Your task to perform on an android device: What's on my calendar today? Image 0: 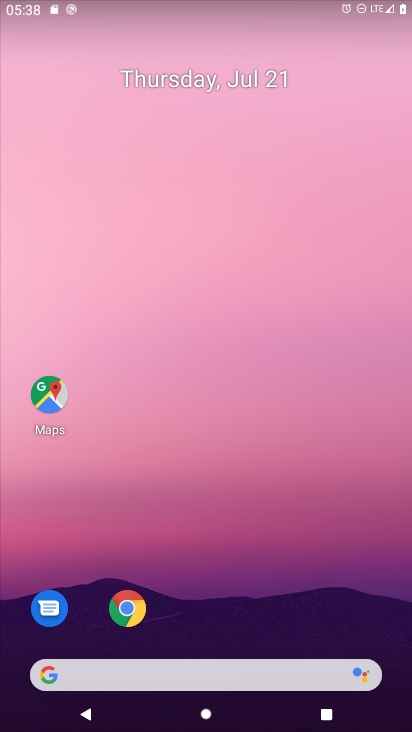
Step 0: drag from (228, 633) to (332, 3)
Your task to perform on an android device: What's on my calendar today? Image 1: 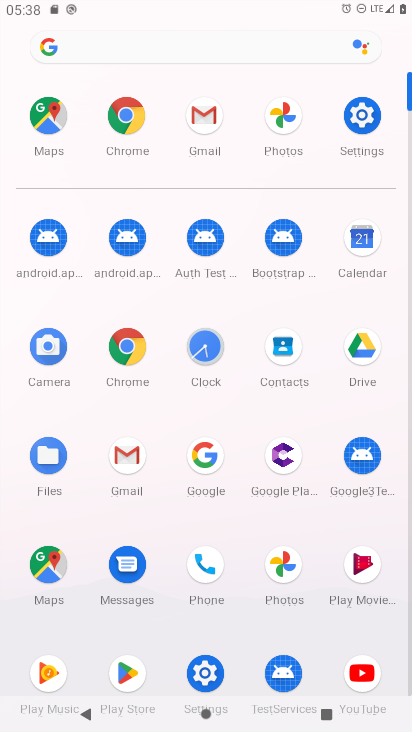
Step 1: click (359, 244)
Your task to perform on an android device: What's on my calendar today? Image 2: 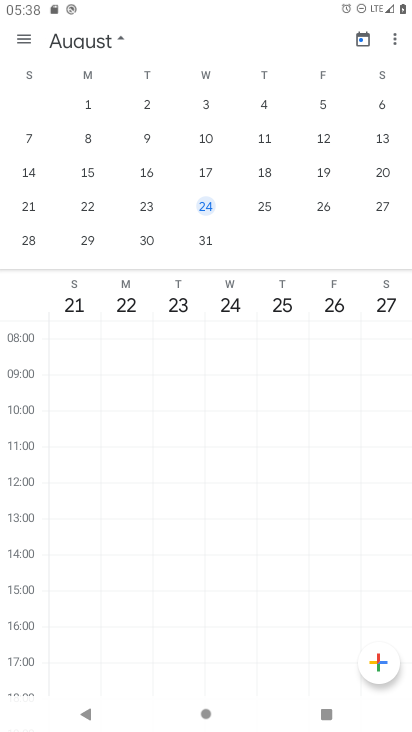
Step 2: drag from (44, 156) to (390, 188)
Your task to perform on an android device: What's on my calendar today? Image 3: 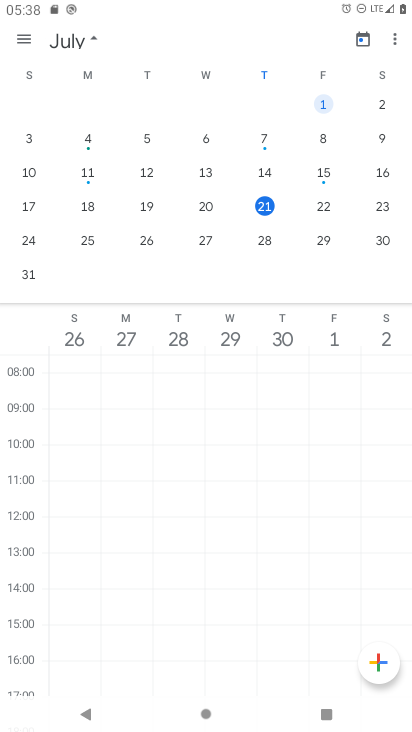
Step 3: click (264, 207)
Your task to perform on an android device: What's on my calendar today? Image 4: 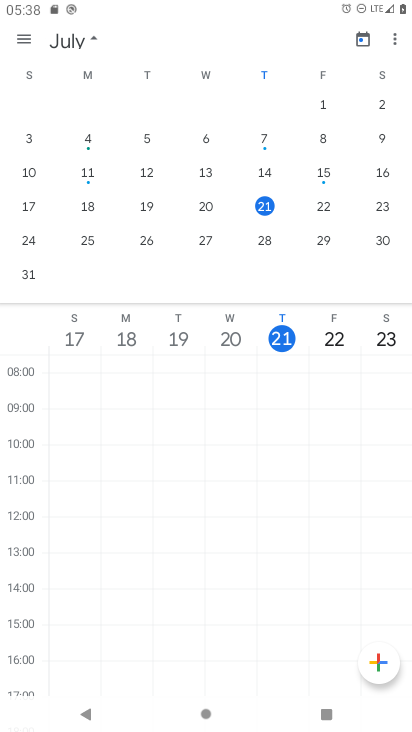
Step 4: task complete